Your task to perform on an android device: Is it going to rain tomorrow? Image 0: 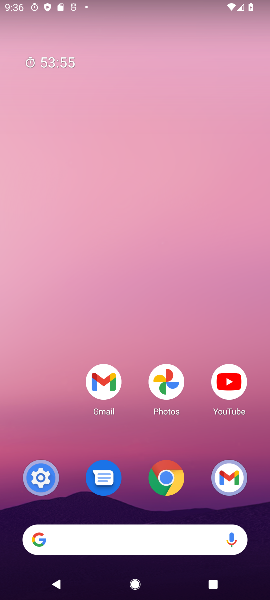
Step 0: press home button
Your task to perform on an android device: Is it going to rain tomorrow? Image 1: 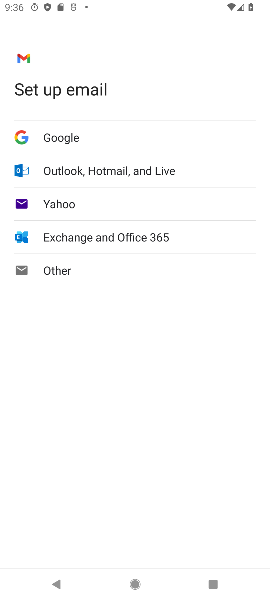
Step 1: drag from (147, 497) to (121, 78)
Your task to perform on an android device: Is it going to rain tomorrow? Image 2: 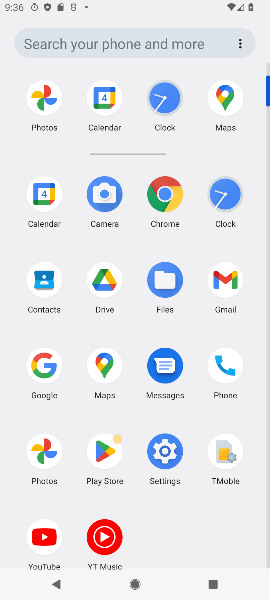
Step 2: click (157, 212)
Your task to perform on an android device: Is it going to rain tomorrow? Image 3: 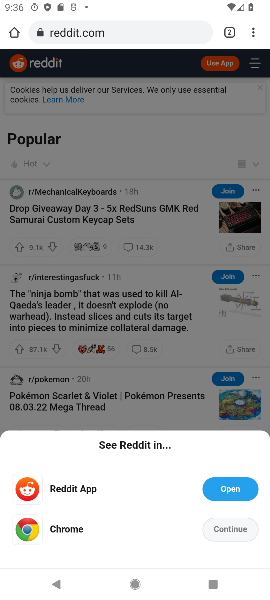
Step 3: click (124, 29)
Your task to perform on an android device: Is it going to rain tomorrow? Image 4: 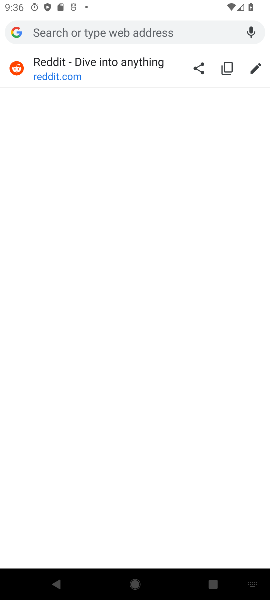
Step 4: type "Is it going to rain tomorrow?"
Your task to perform on an android device: Is it going to rain tomorrow? Image 5: 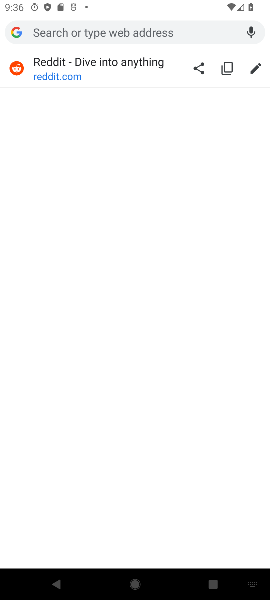
Step 5: click (89, 69)
Your task to perform on an android device: Is it going to rain tomorrow? Image 6: 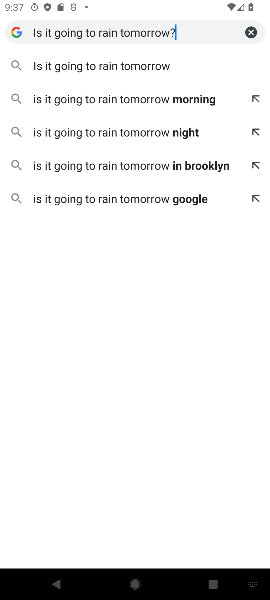
Step 6: type ""
Your task to perform on an android device: Is it going to rain tomorrow? Image 7: 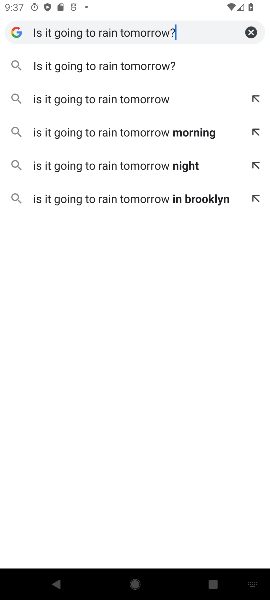
Step 7: click (89, 69)
Your task to perform on an android device: Is it going to rain tomorrow? Image 8: 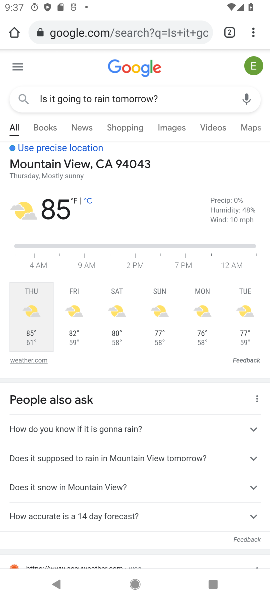
Step 8: task complete